Your task to perform on an android device: Go to privacy settings Image 0: 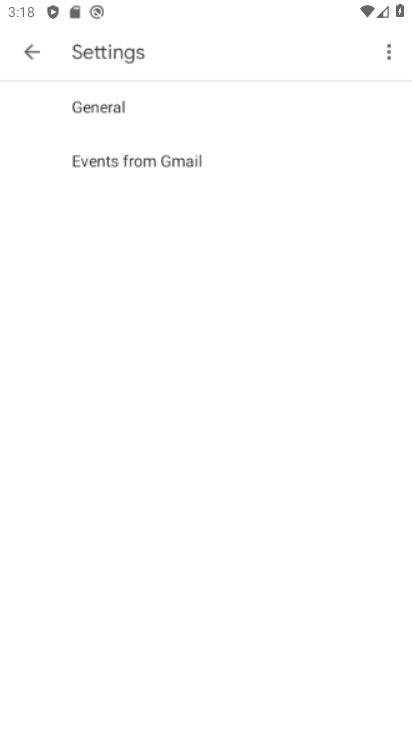
Step 0: drag from (216, 725) to (216, 117)
Your task to perform on an android device: Go to privacy settings Image 1: 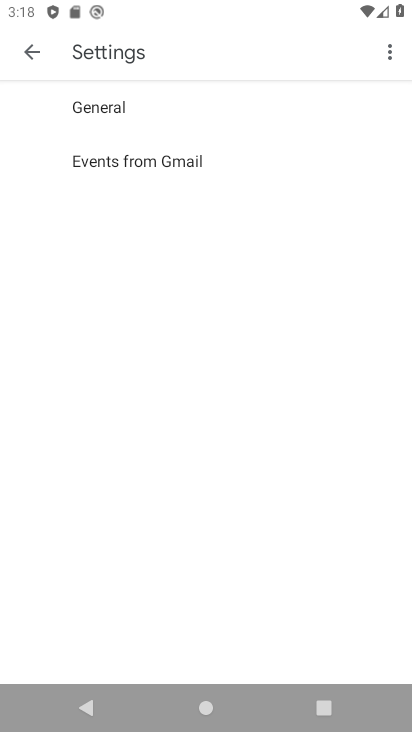
Step 1: press home button
Your task to perform on an android device: Go to privacy settings Image 2: 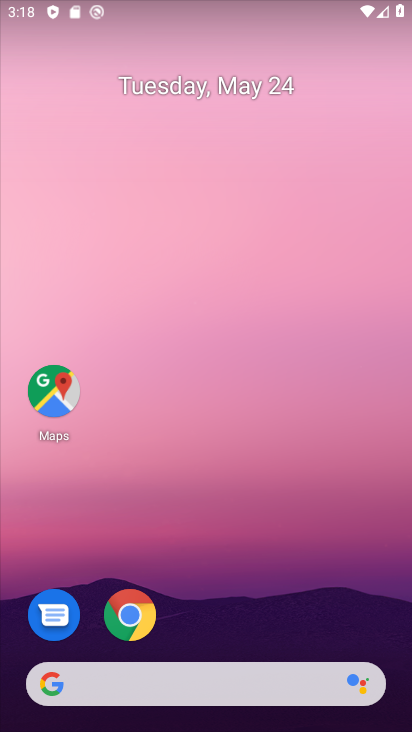
Step 2: drag from (212, 719) to (214, 47)
Your task to perform on an android device: Go to privacy settings Image 3: 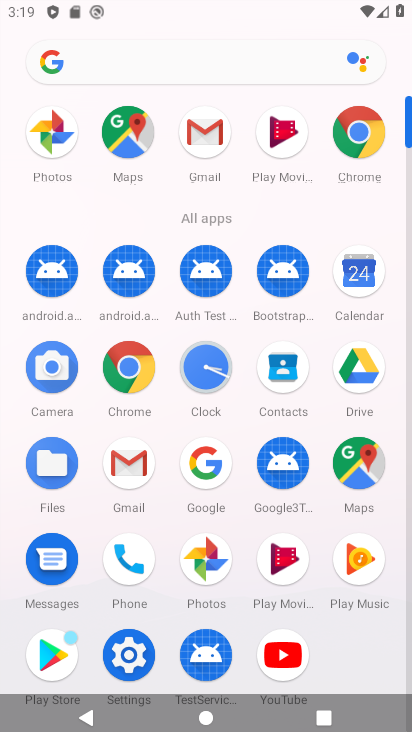
Step 3: click (129, 646)
Your task to perform on an android device: Go to privacy settings Image 4: 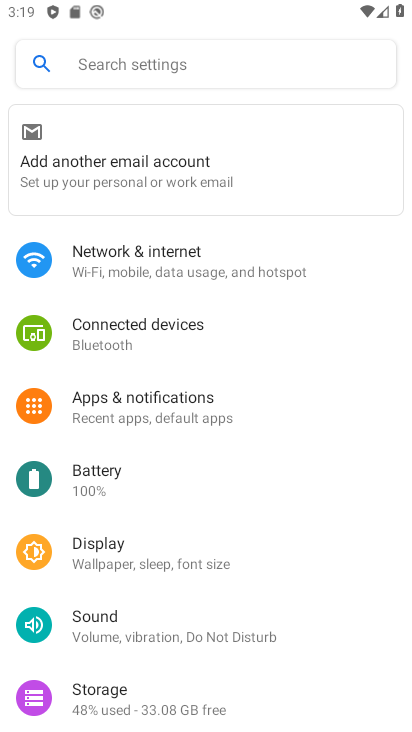
Step 4: drag from (147, 668) to (159, 158)
Your task to perform on an android device: Go to privacy settings Image 5: 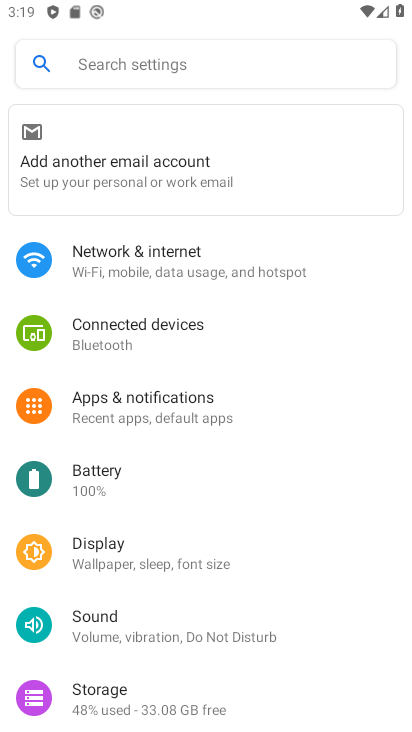
Step 5: drag from (201, 685) to (235, 387)
Your task to perform on an android device: Go to privacy settings Image 6: 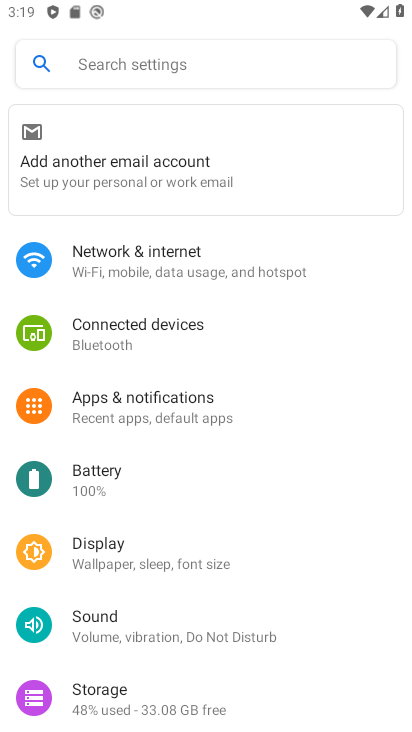
Step 6: drag from (129, 668) to (145, 408)
Your task to perform on an android device: Go to privacy settings Image 7: 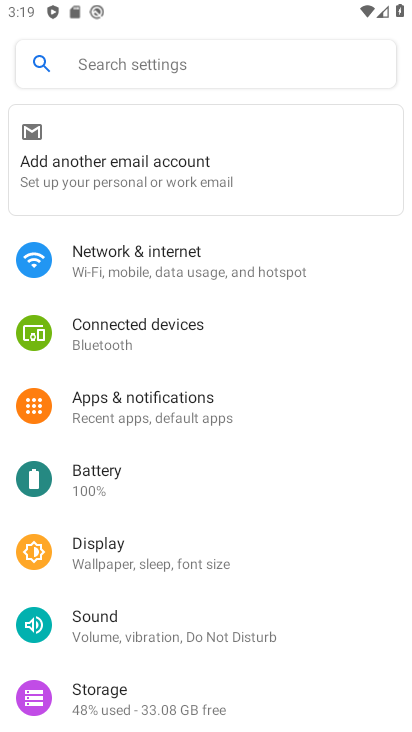
Step 7: drag from (122, 676) to (142, 374)
Your task to perform on an android device: Go to privacy settings Image 8: 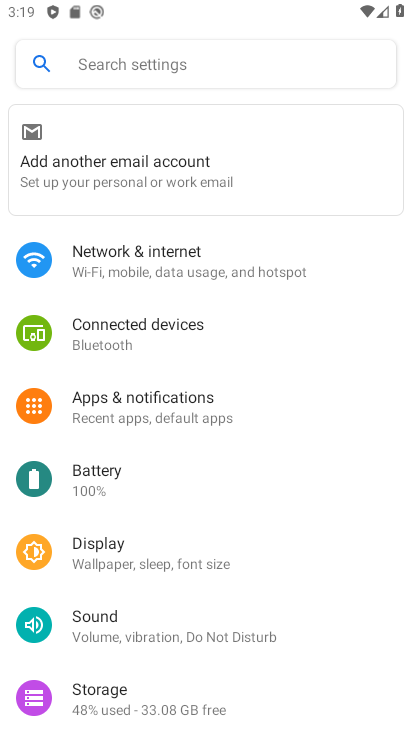
Step 8: drag from (136, 672) to (172, 397)
Your task to perform on an android device: Go to privacy settings Image 9: 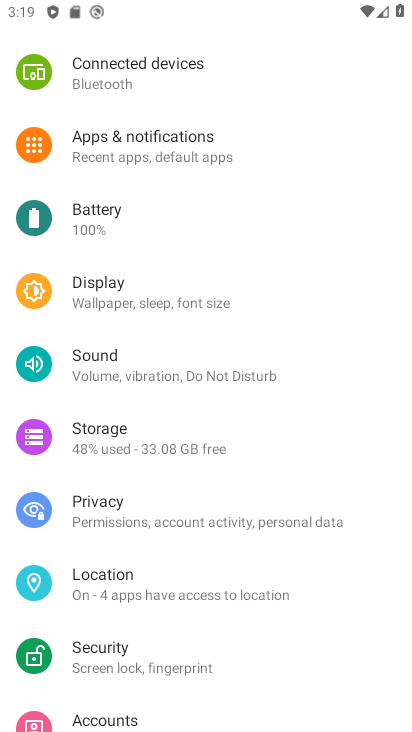
Step 9: click (110, 514)
Your task to perform on an android device: Go to privacy settings Image 10: 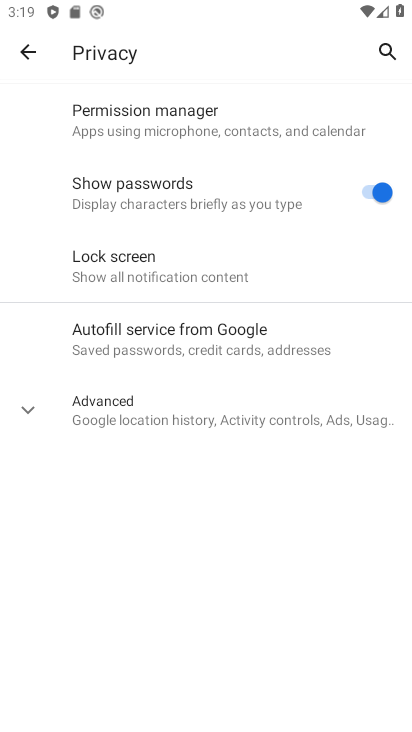
Step 10: task complete